Your task to perform on an android device: read, delete, or share a saved page in the chrome app Image 0: 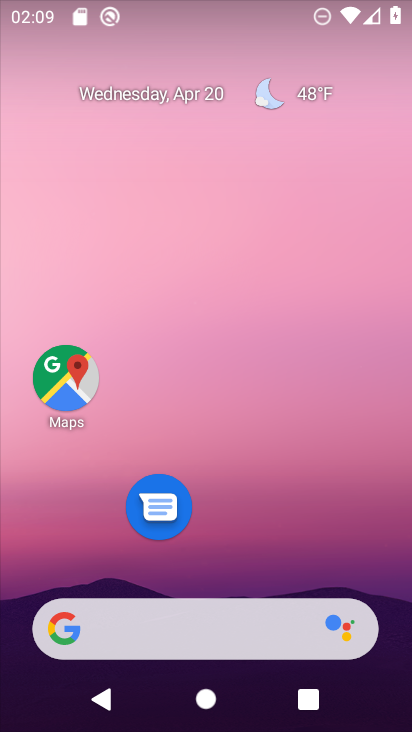
Step 0: drag from (203, 710) to (203, 171)
Your task to perform on an android device: read, delete, or share a saved page in the chrome app Image 1: 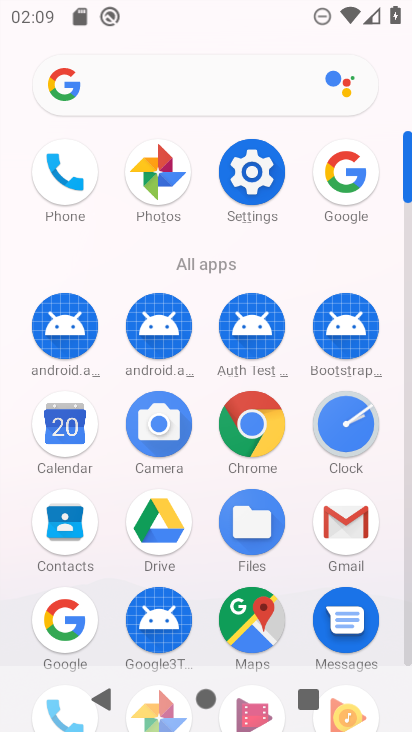
Step 1: click (253, 422)
Your task to perform on an android device: read, delete, or share a saved page in the chrome app Image 2: 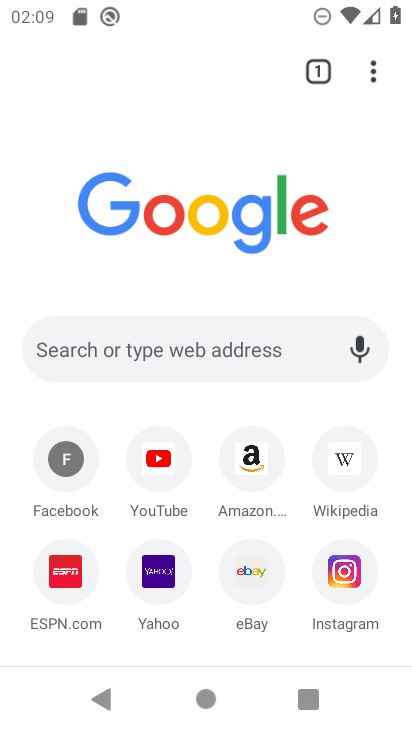
Step 2: click (371, 77)
Your task to perform on an android device: read, delete, or share a saved page in the chrome app Image 3: 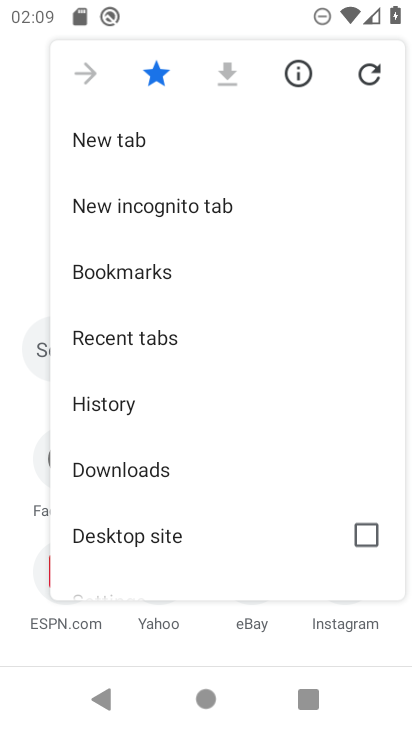
Step 3: click (134, 467)
Your task to perform on an android device: read, delete, or share a saved page in the chrome app Image 4: 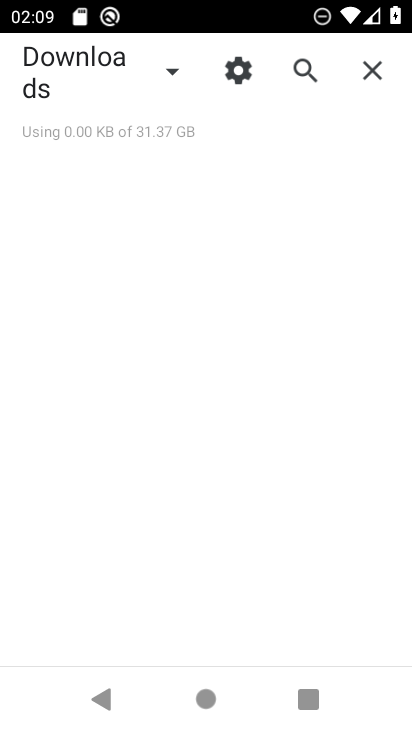
Step 4: click (171, 72)
Your task to perform on an android device: read, delete, or share a saved page in the chrome app Image 5: 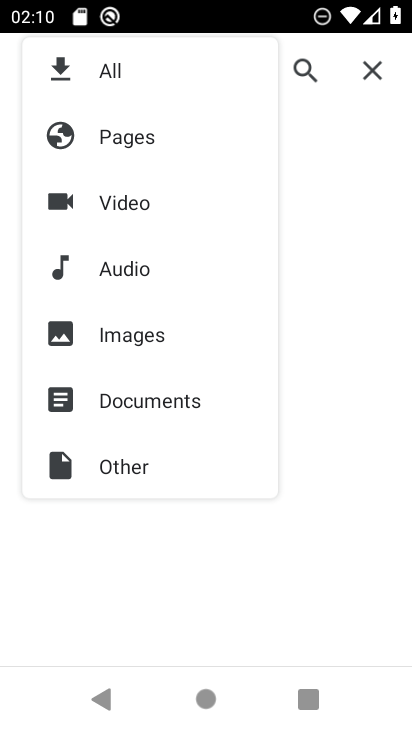
Step 5: click (123, 137)
Your task to perform on an android device: read, delete, or share a saved page in the chrome app Image 6: 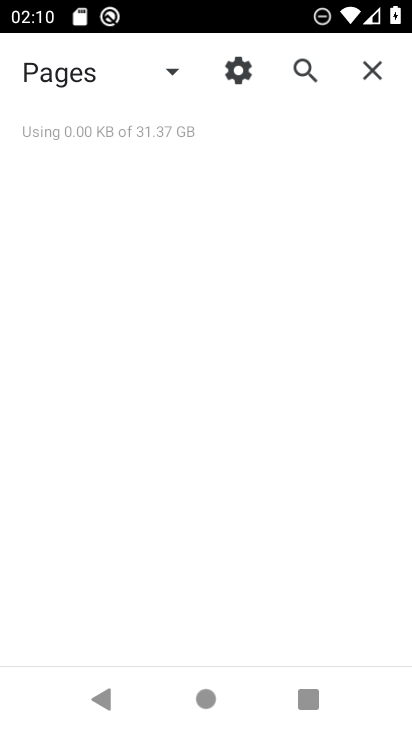
Step 6: task complete